Your task to perform on an android device: Empty the shopping cart on amazon.com. Search for "razer huntsman" on amazon.com, select the first entry, add it to the cart, then select checkout. Image 0: 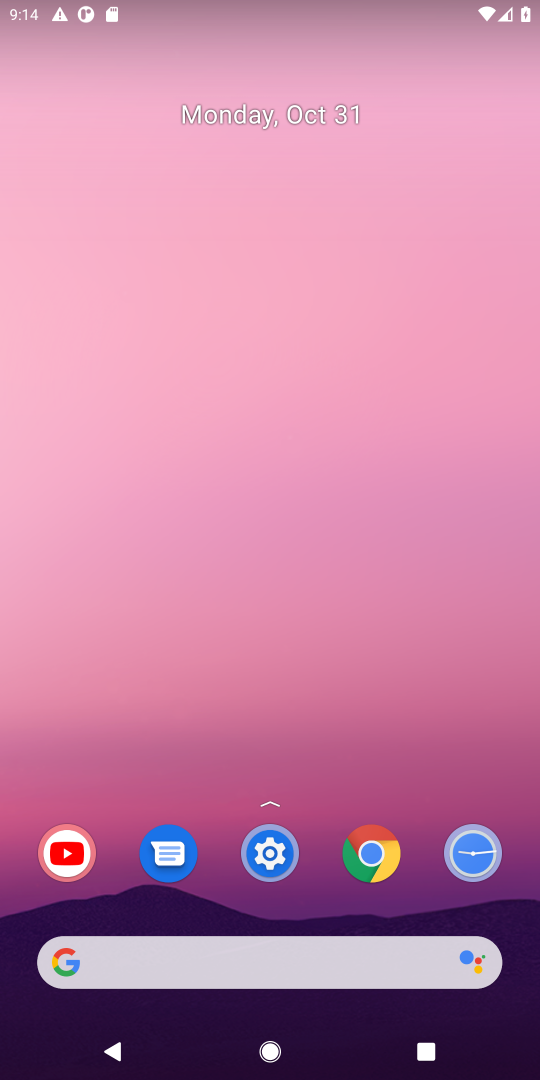
Step 0: click (289, 949)
Your task to perform on an android device: Empty the shopping cart on amazon.com. Search for "razer huntsman" on amazon.com, select the first entry, add it to the cart, then select checkout. Image 1: 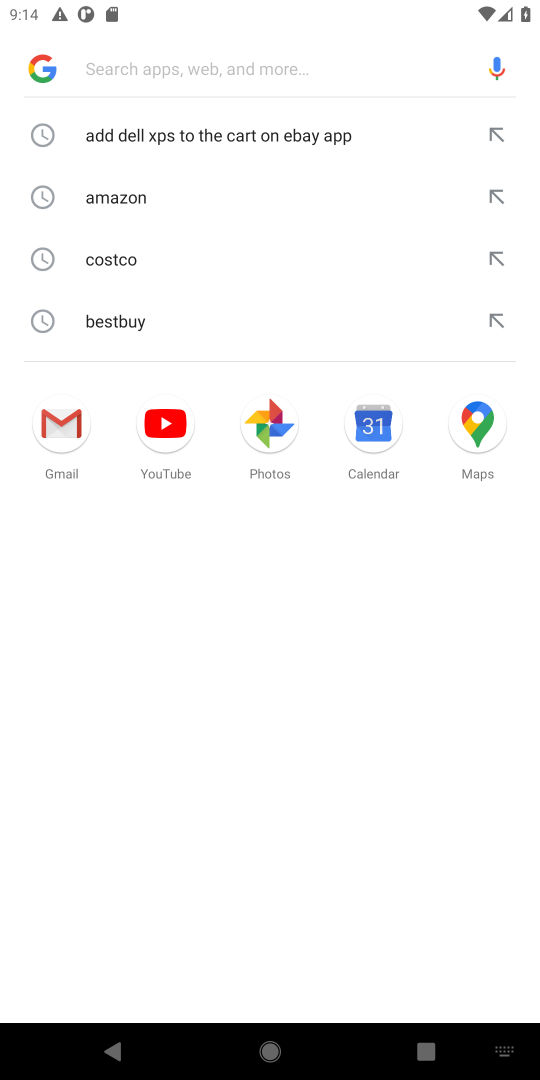
Step 1: click (134, 179)
Your task to perform on an android device: Empty the shopping cart on amazon.com. Search for "razer huntsman" on amazon.com, select the first entry, add it to the cart, then select checkout. Image 2: 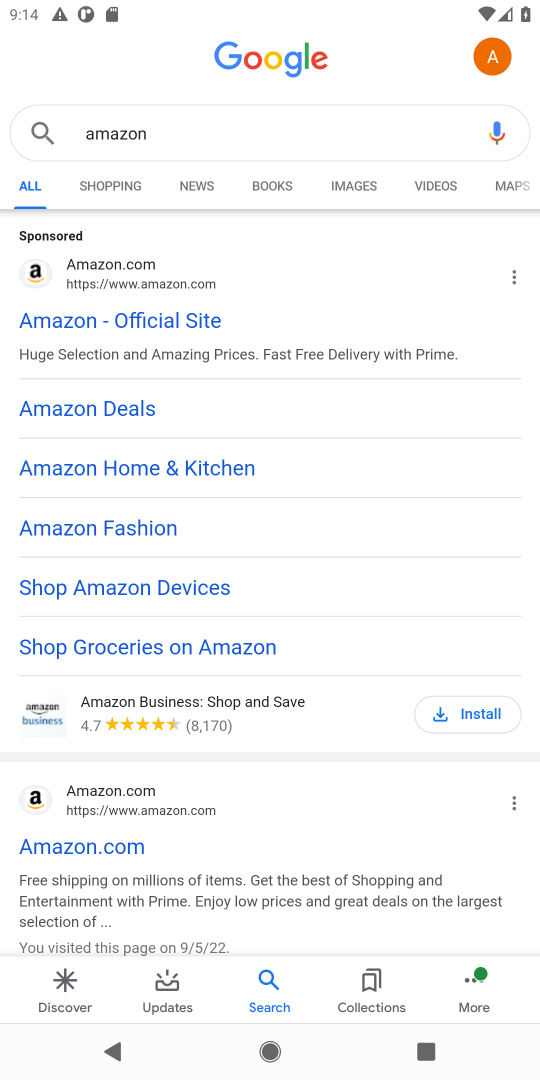
Step 2: click (153, 316)
Your task to perform on an android device: Empty the shopping cart on amazon.com. Search for "razer huntsman" on amazon.com, select the first entry, add it to the cart, then select checkout. Image 3: 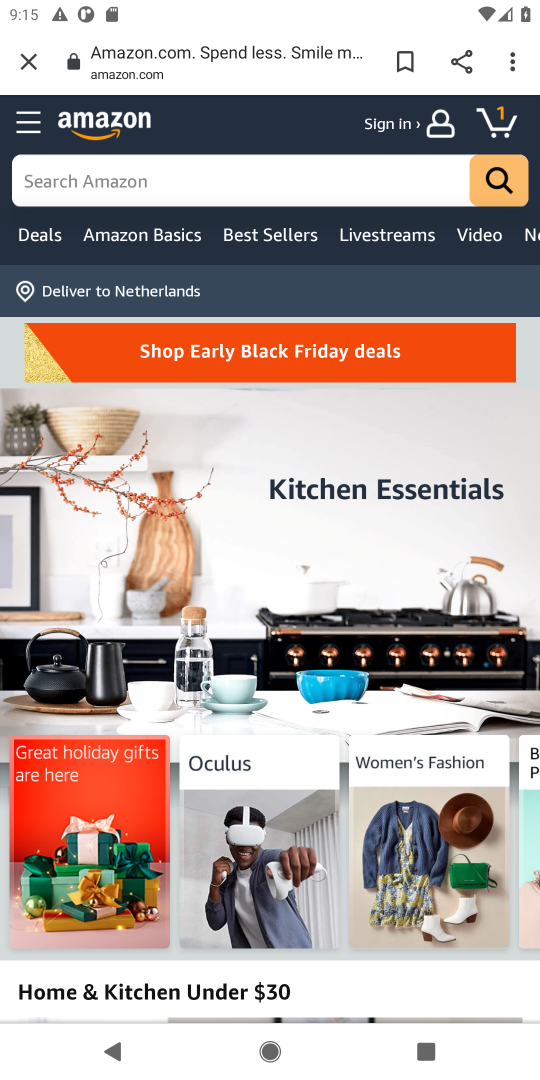
Step 3: click (495, 126)
Your task to perform on an android device: Empty the shopping cart on amazon.com. Search for "razer huntsman" on amazon.com, select the first entry, add it to the cart, then select checkout. Image 4: 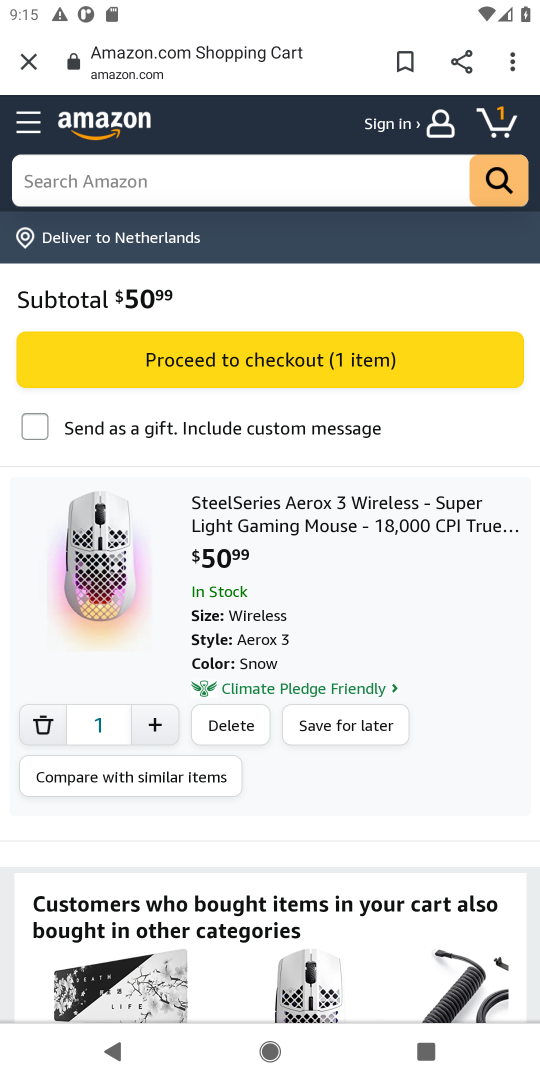
Step 4: click (45, 719)
Your task to perform on an android device: Empty the shopping cart on amazon.com. Search for "razer huntsman" on amazon.com, select the first entry, add it to the cart, then select checkout. Image 5: 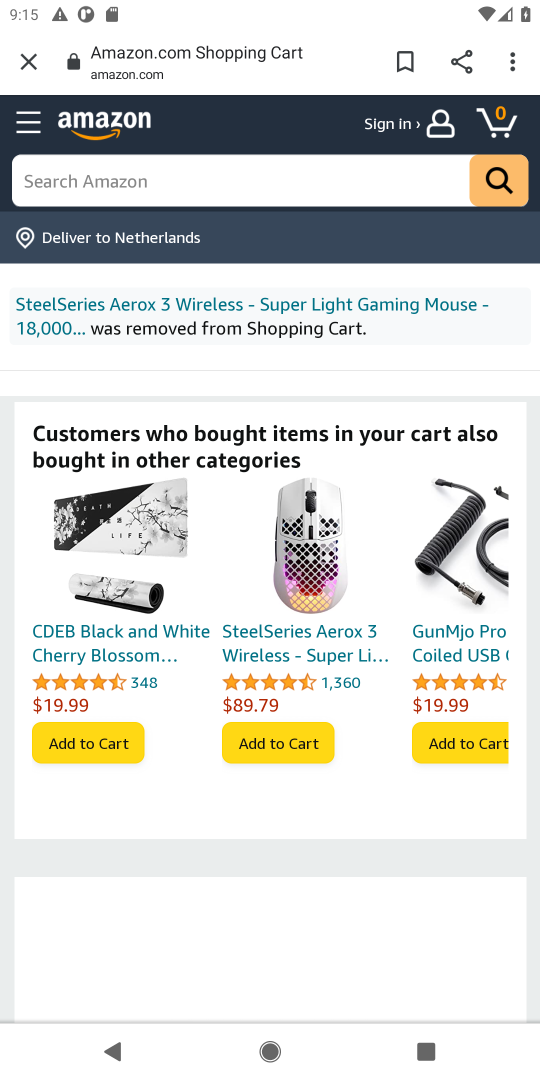
Step 5: click (153, 168)
Your task to perform on an android device: Empty the shopping cart on amazon.com. Search for "razer huntsman" on amazon.com, select the first entry, add it to the cart, then select checkout. Image 6: 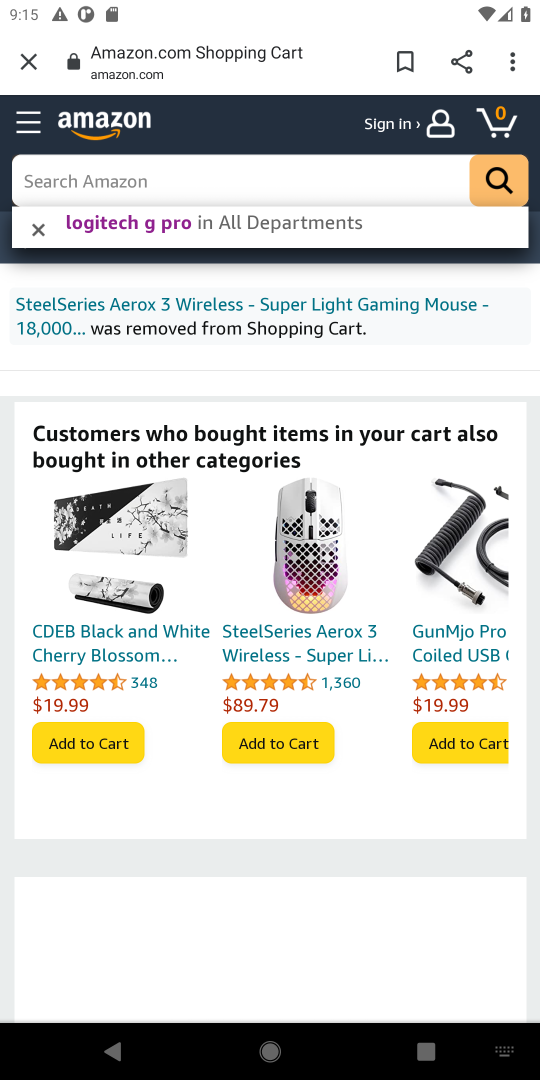
Step 6: type "razer huntsman"
Your task to perform on an android device: Empty the shopping cart on amazon.com. Search for "razer huntsman" on amazon.com, select the first entry, add it to the cart, then select checkout. Image 7: 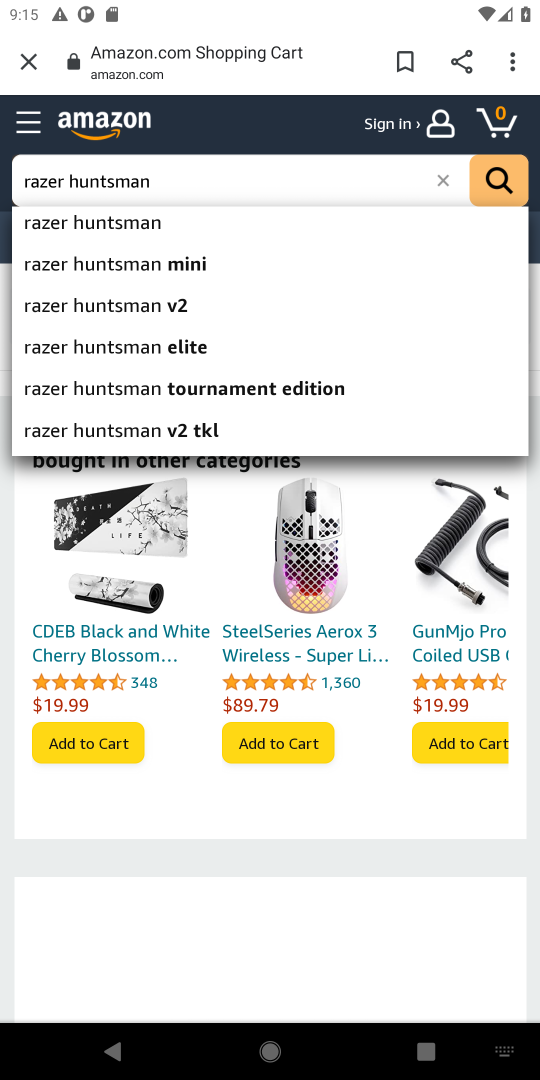
Step 7: click (116, 219)
Your task to perform on an android device: Empty the shopping cart on amazon.com. Search for "razer huntsman" on amazon.com, select the first entry, add it to the cart, then select checkout. Image 8: 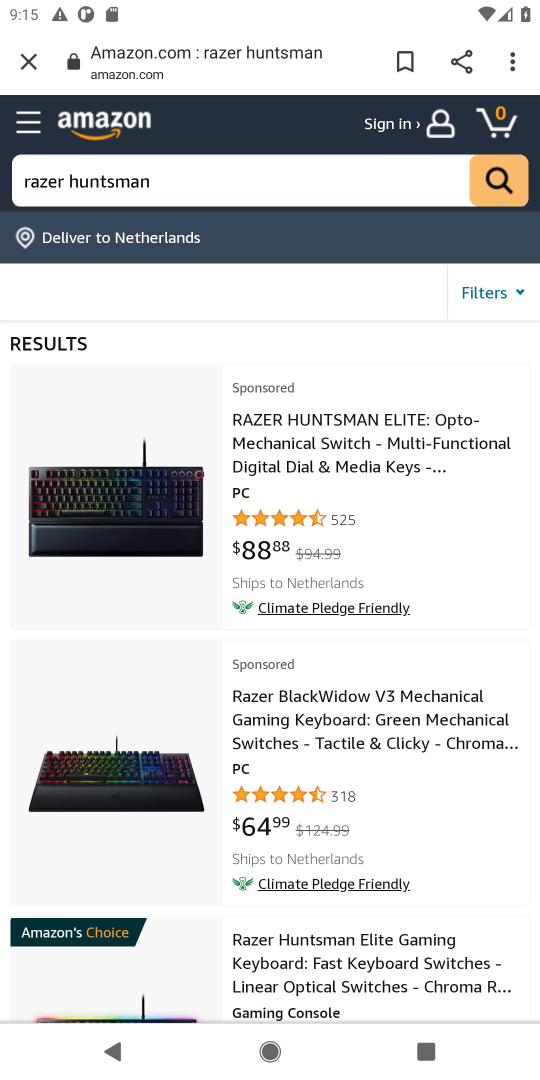
Step 8: click (340, 424)
Your task to perform on an android device: Empty the shopping cart on amazon.com. Search for "razer huntsman" on amazon.com, select the first entry, add it to the cart, then select checkout. Image 9: 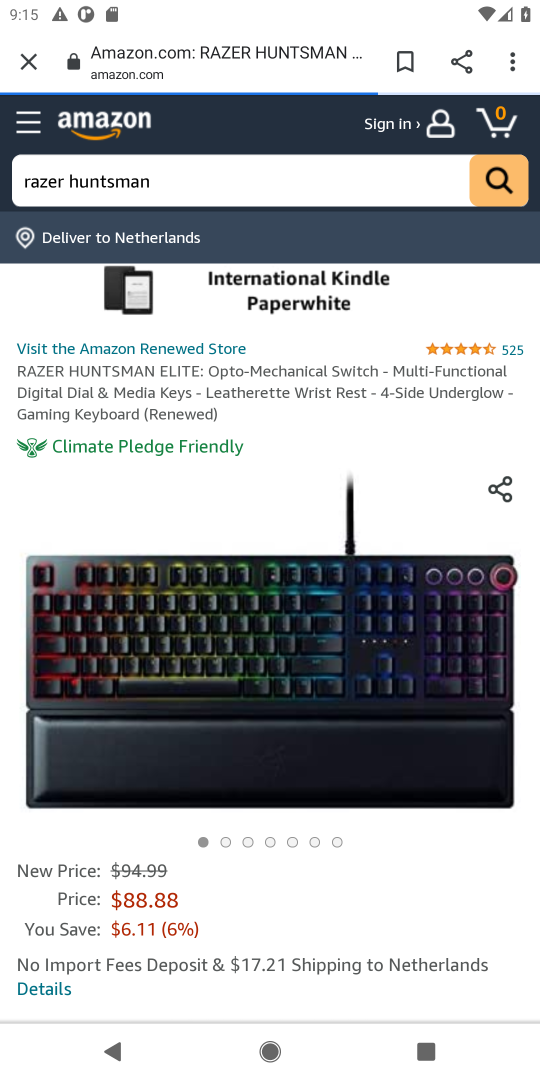
Step 9: drag from (442, 857) to (386, 464)
Your task to perform on an android device: Empty the shopping cart on amazon.com. Search for "razer huntsman" on amazon.com, select the first entry, add it to the cart, then select checkout. Image 10: 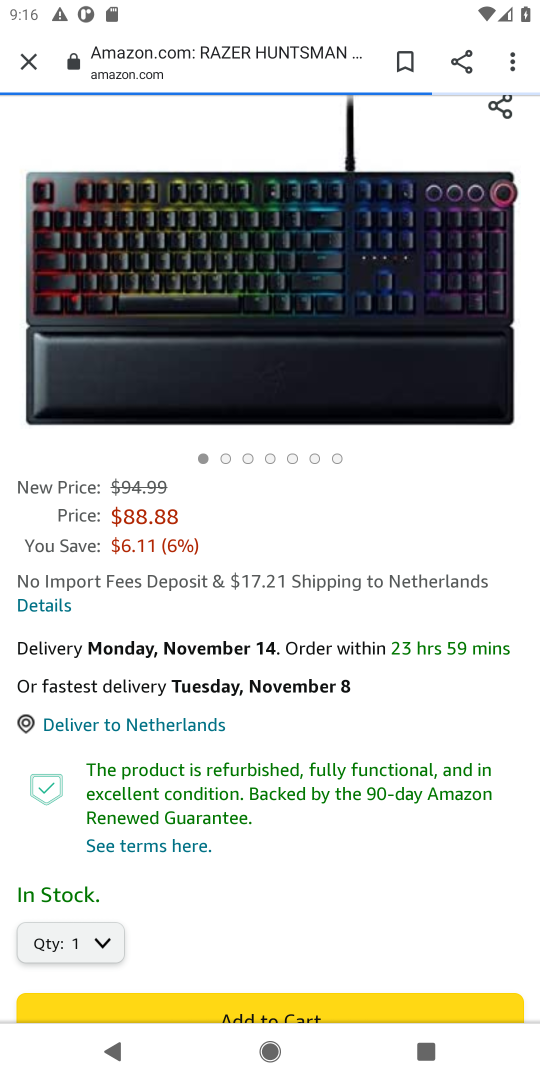
Step 10: drag from (372, 935) to (320, 656)
Your task to perform on an android device: Empty the shopping cart on amazon.com. Search for "razer huntsman" on amazon.com, select the first entry, add it to the cart, then select checkout. Image 11: 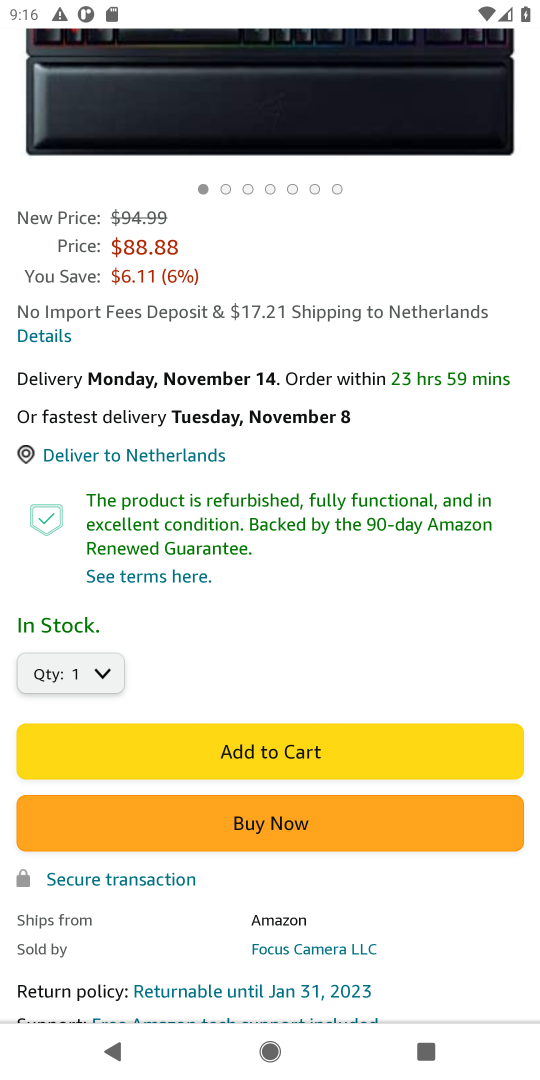
Step 11: click (242, 751)
Your task to perform on an android device: Empty the shopping cart on amazon.com. Search for "razer huntsman" on amazon.com, select the first entry, add it to the cart, then select checkout. Image 12: 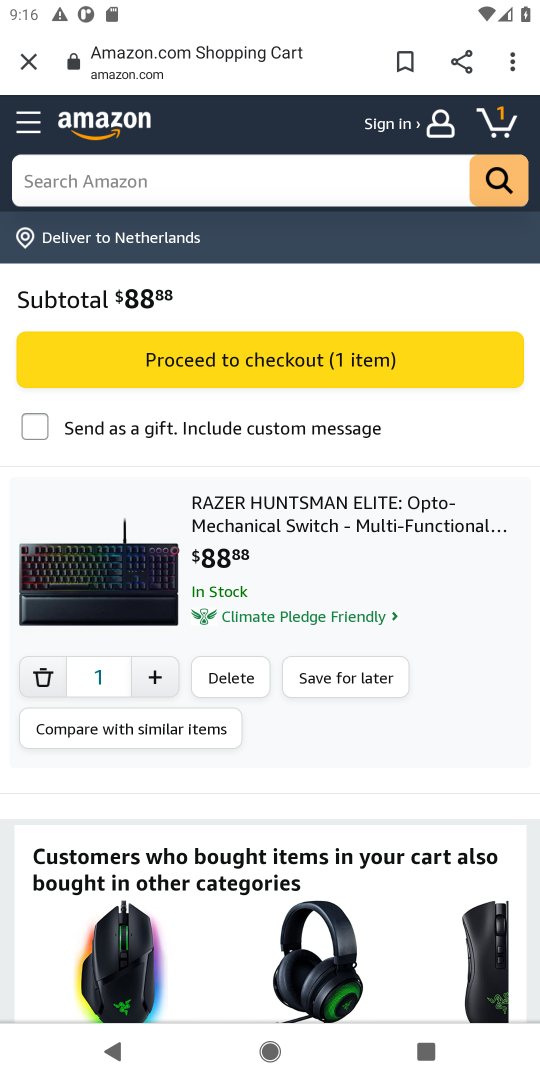
Step 12: click (264, 361)
Your task to perform on an android device: Empty the shopping cart on amazon.com. Search for "razer huntsman" on amazon.com, select the first entry, add it to the cart, then select checkout. Image 13: 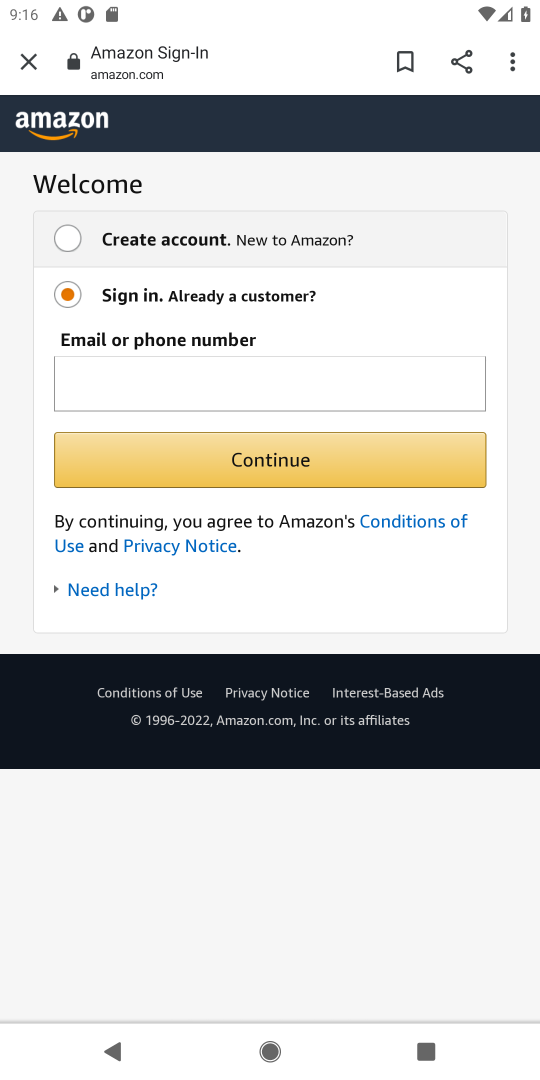
Step 13: task complete